Your task to perform on an android device: change notification settings in the gmail app Image 0: 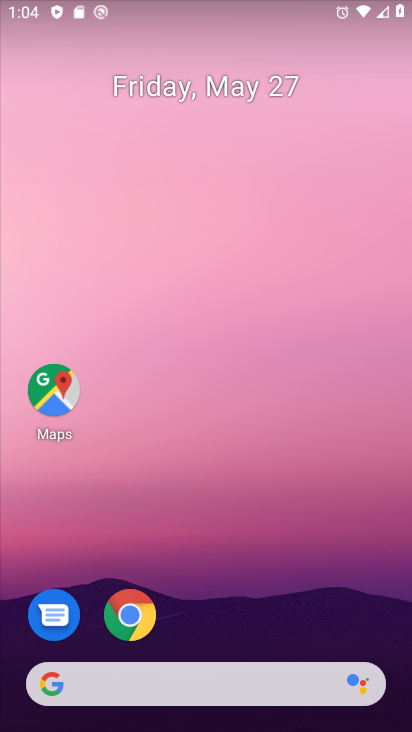
Step 0: click (260, 77)
Your task to perform on an android device: change notification settings in the gmail app Image 1: 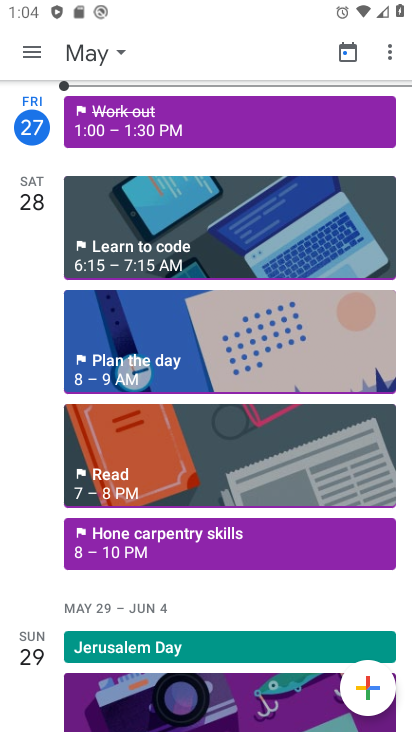
Step 1: press home button
Your task to perform on an android device: change notification settings in the gmail app Image 2: 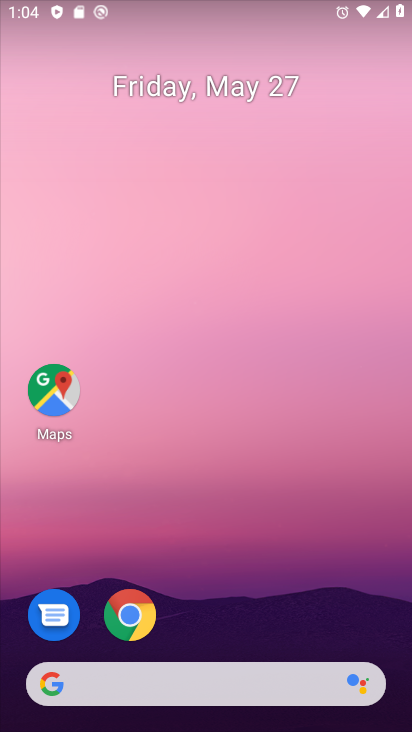
Step 2: drag from (261, 630) to (264, 53)
Your task to perform on an android device: change notification settings in the gmail app Image 3: 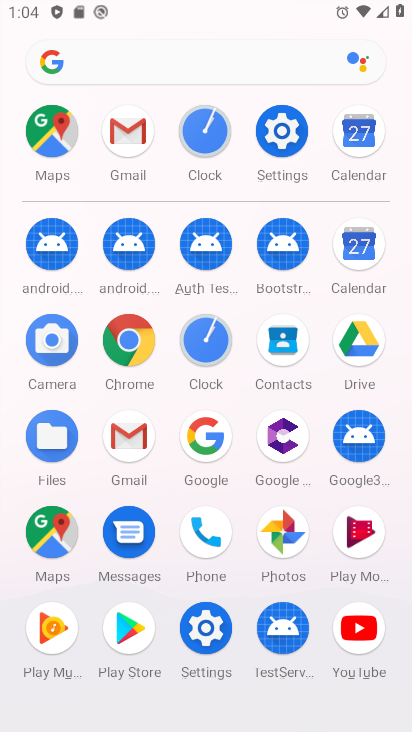
Step 3: click (124, 128)
Your task to perform on an android device: change notification settings in the gmail app Image 4: 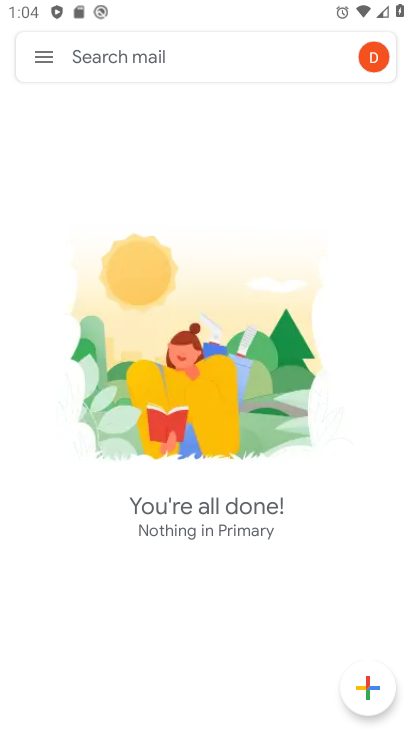
Step 4: click (43, 55)
Your task to perform on an android device: change notification settings in the gmail app Image 5: 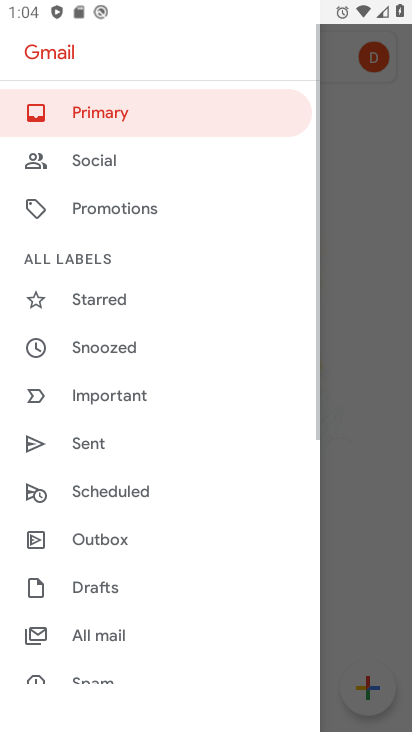
Step 5: drag from (185, 623) to (175, 107)
Your task to perform on an android device: change notification settings in the gmail app Image 6: 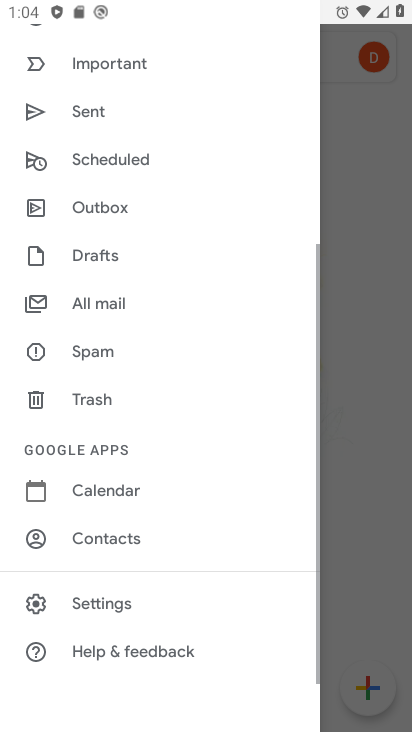
Step 6: click (99, 605)
Your task to perform on an android device: change notification settings in the gmail app Image 7: 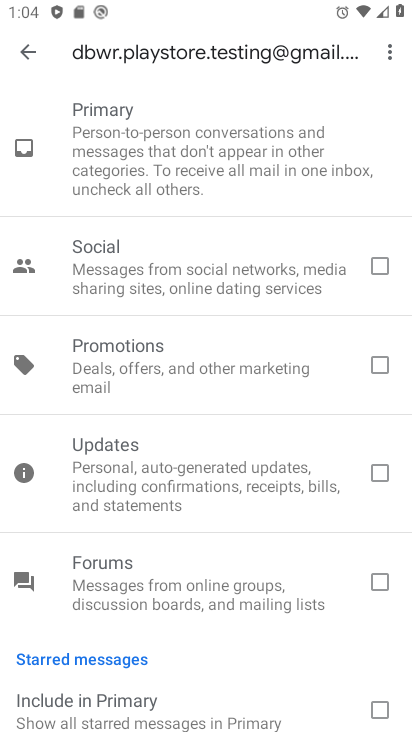
Step 7: click (30, 48)
Your task to perform on an android device: change notification settings in the gmail app Image 8: 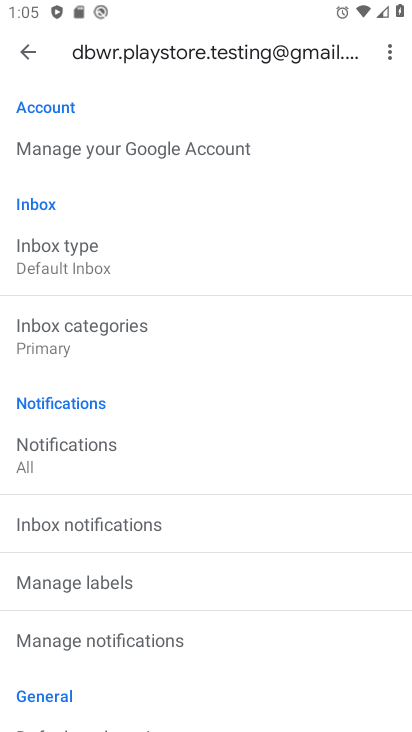
Step 8: click (25, 53)
Your task to perform on an android device: change notification settings in the gmail app Image 9: 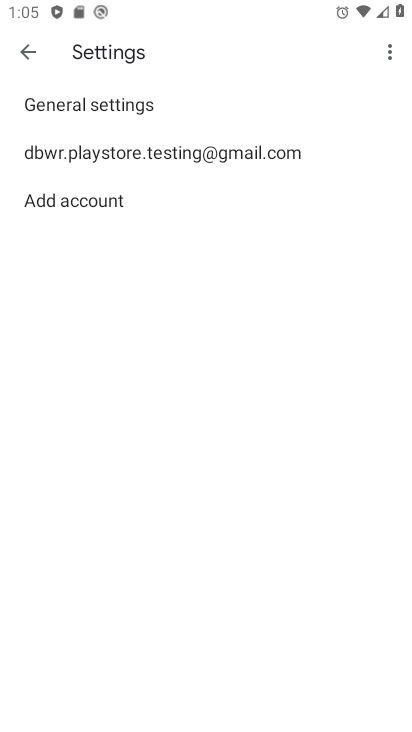
Step 9: click (76, 106)
Your task to perform on an android device: change notification settings in the gmail app Image 10: 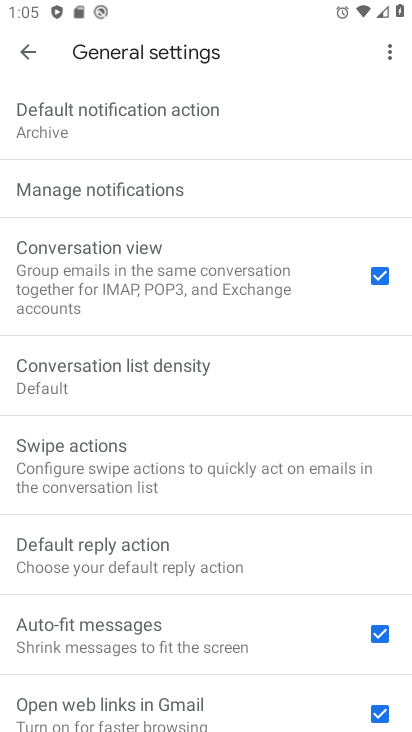
Step 10: click (100, 193)
Your task to perform on an android device: change notification settings in the gmail app Image 11: 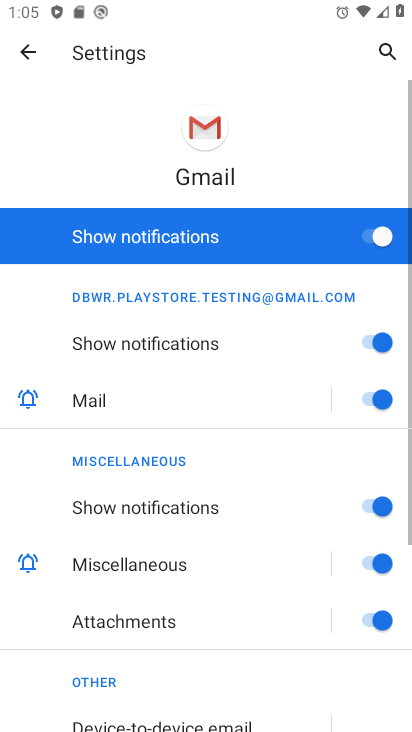
Step 11: click (383, 236)
Your task to perform on an android device: change notification settings in the gmail app Image 12: 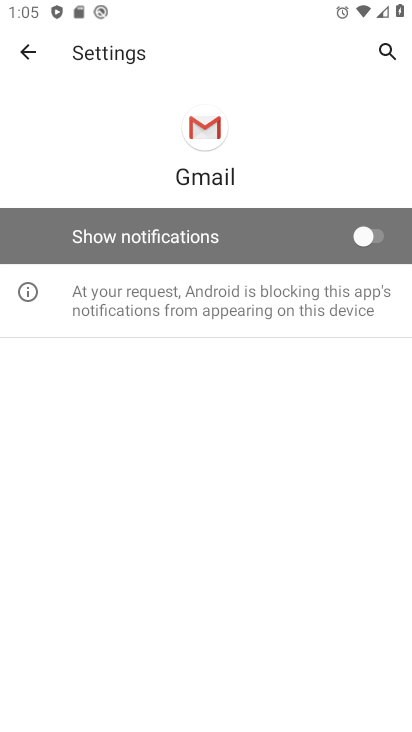
Step 12: task complete